Your task to perform on an android device: Open Chrome and go to the settings page Image 0: 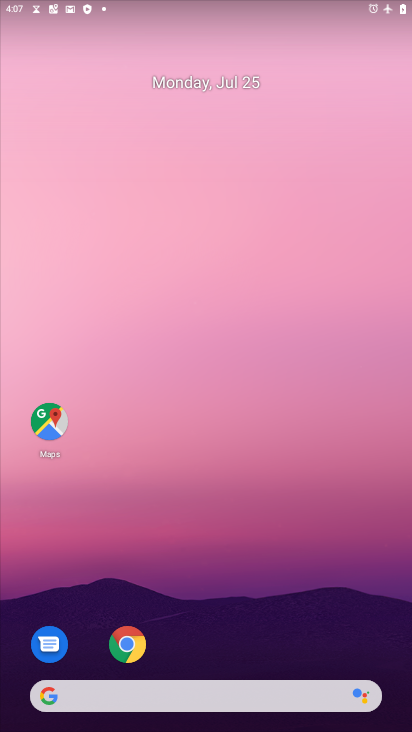
Step 0: press home button
Your task to perform on an android device: Open Chrome and go to the settings page Image 1: 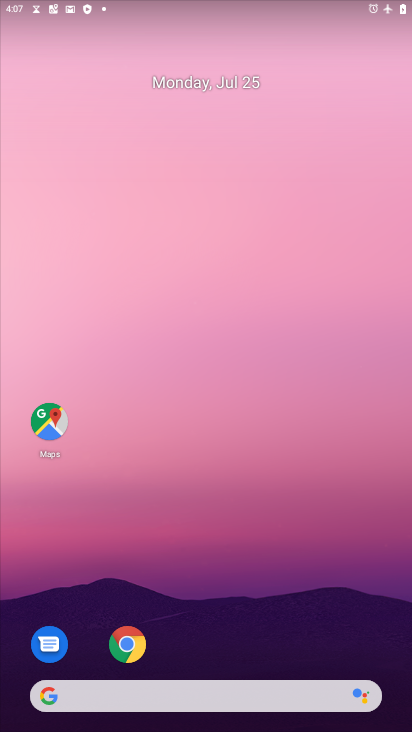
Step 1: drag from (273, 609) to (314, 48)
Your task to perform on an android device: Open Chrome and go to the settings page Image 2: 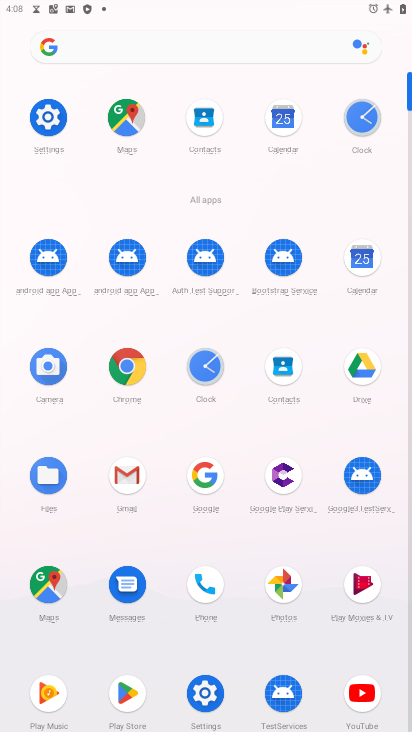
Step 2: click (125, 376)
Your task to perform on an android device: Open Chrome and go to the settings page Image 3: 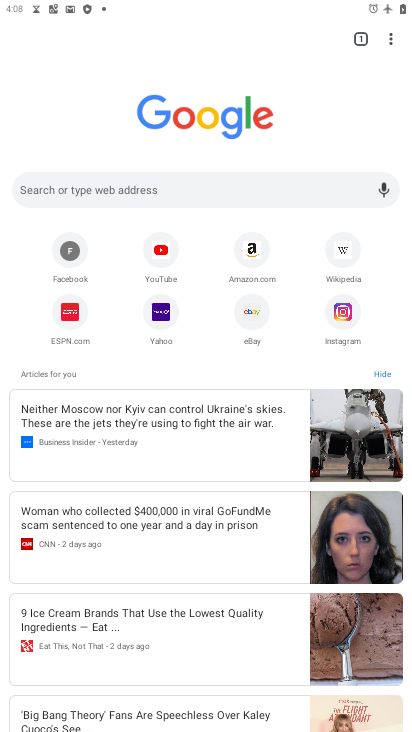
Step 3: click (386, 37)
Your task to perform on an android device: Open Chrome and go to the settings page Image 4: 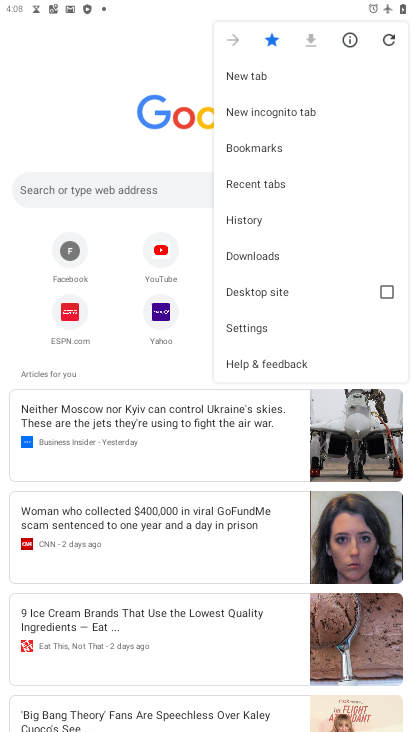
Step 4: click (246, 329)
Your task to perform on an android device: Open Chrome and go to the settings page Image 5: 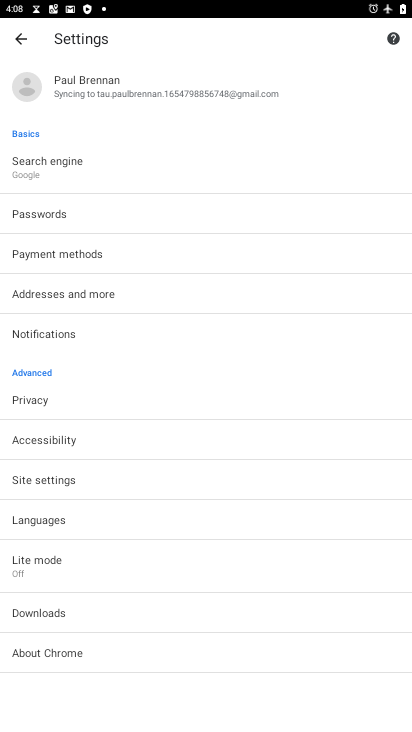
Step 5: task complete